Your task to perform on an android device: Open Android settings Image 0: 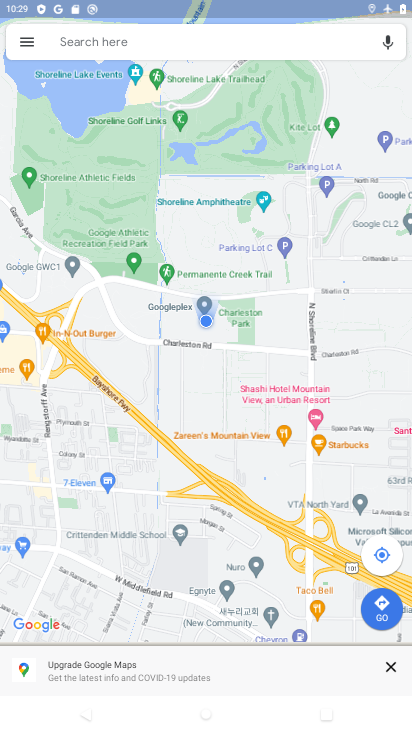
Step 0: click (118, 623)
Your task to perform on an android device: Open Android settings Image 1: 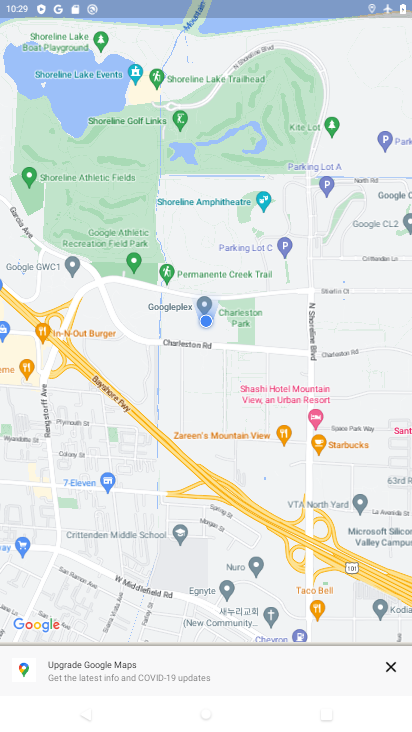
Step 1: press home button
Your task to perform on an android device: Open Android settings Image 2: 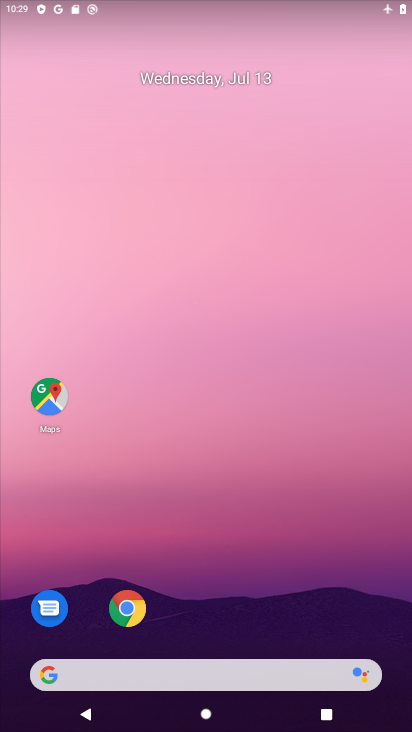
Step 2: drag from (284, 583) to (284, 57)
Your task to perform on an android device: Open Android settings Image 3: 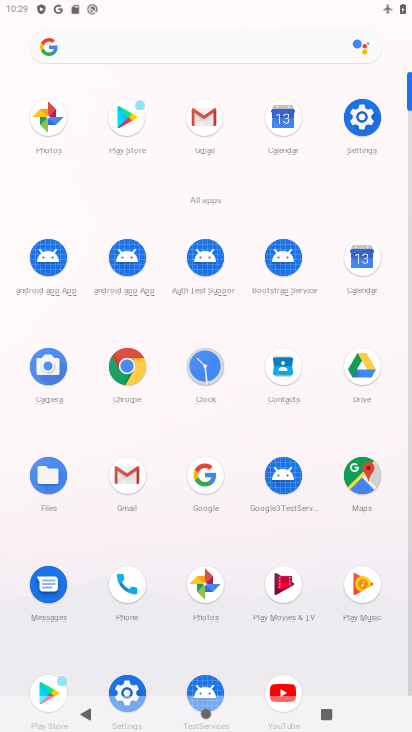
Step 3: click (359, 112)
Your task to perform on an android device: Open Android settings Image 4: 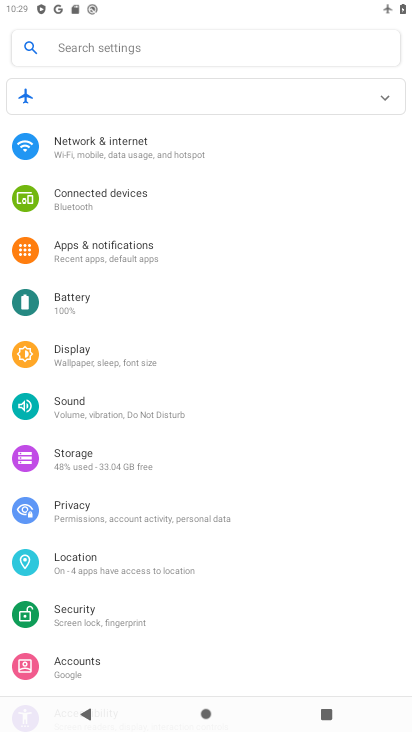
Step 4: drag from (107, 667) to (59, 244)
Your task to perform on an android device: Open Android settings Image 5: 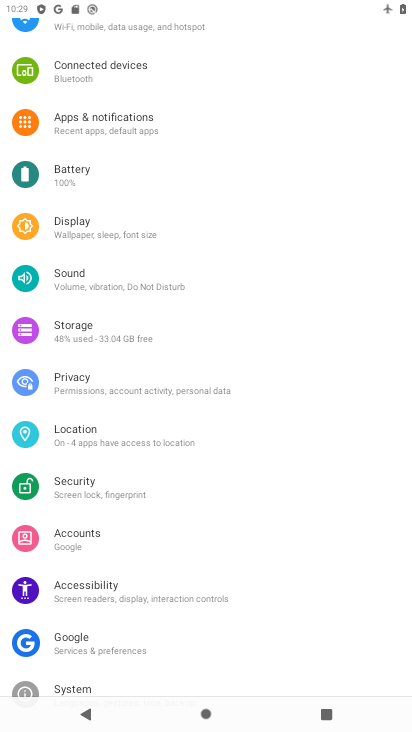
Step 5: click (103, 690)
Your task to perform on an android device: Open Android settings Image 6: 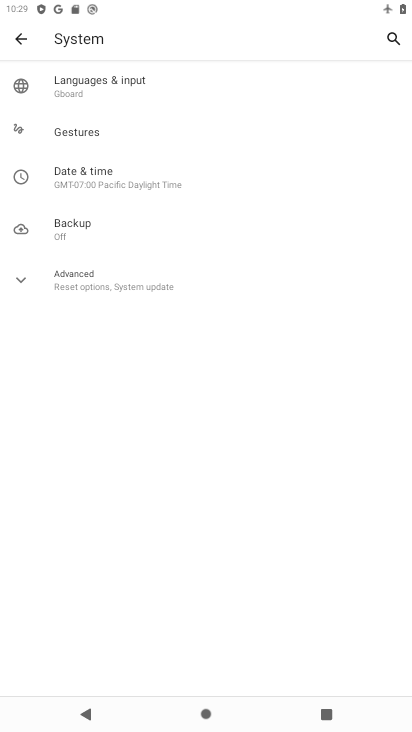
Step 6: task complete